Your task to perform on an android device: open app "The Home Depot" Image 0: 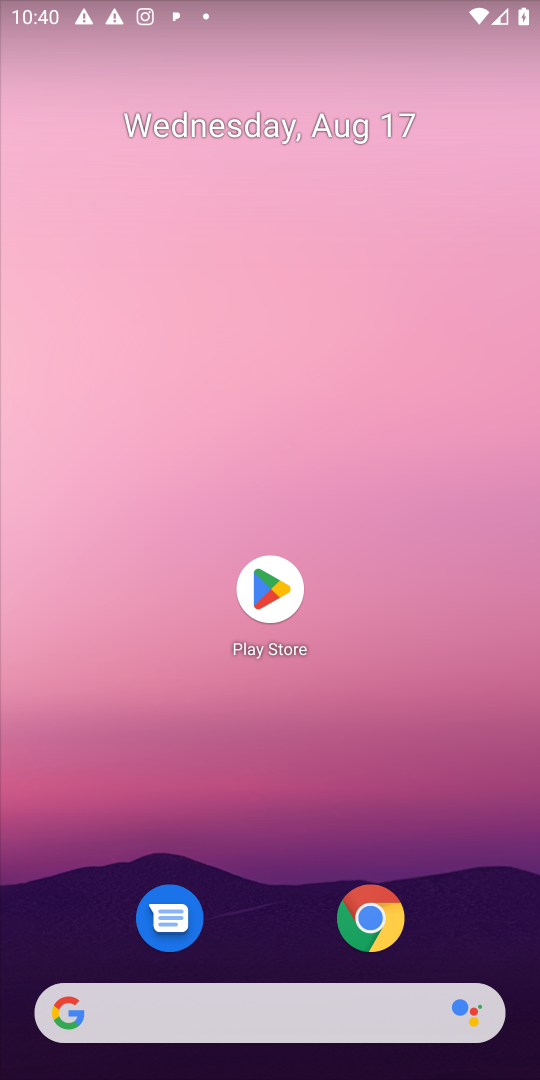
Step 0: press home button
Your task to perform on an android device: open app "The Home Depot" Image 1: 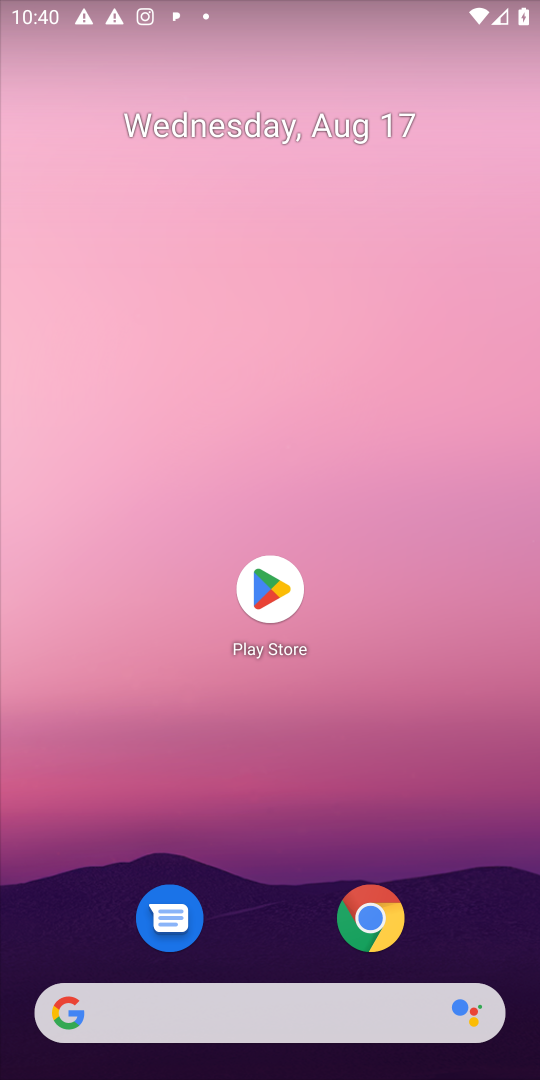
Step 1: click (269, 575)
Your task to perform on an android device: open app "The Home Depot" Image 2: 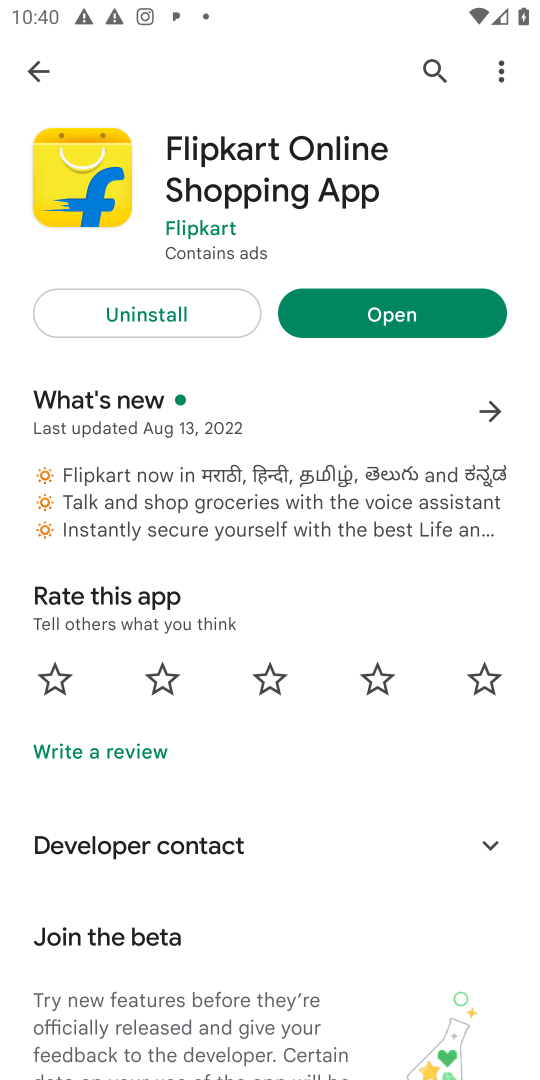
Step 2: click (434, 62)
Your task to perform on an android device: open app "The Home Depot" Image 3: 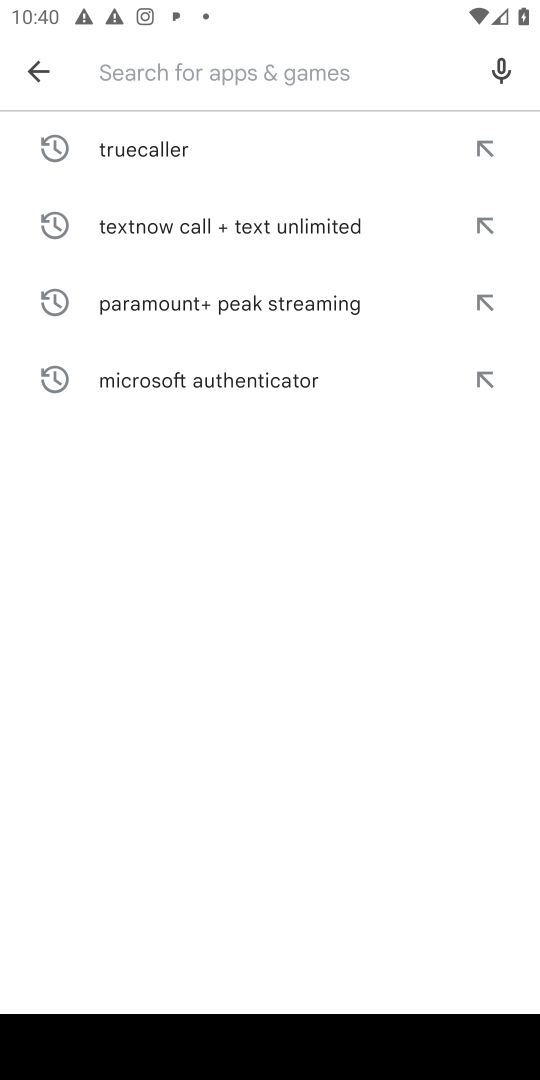
Step 3: type "The Home Depot"
Your task to perform on an android device: open app "The Home Depot" Image 4: 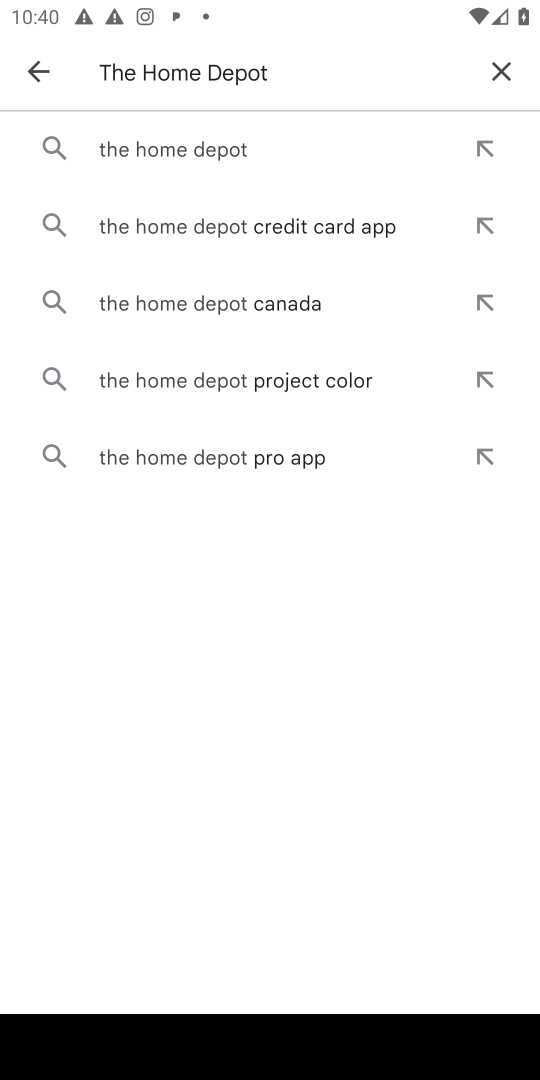
Step 4: click (239, 147)
Your task to perform on an android device: open app "The Home Depot" Image 5: 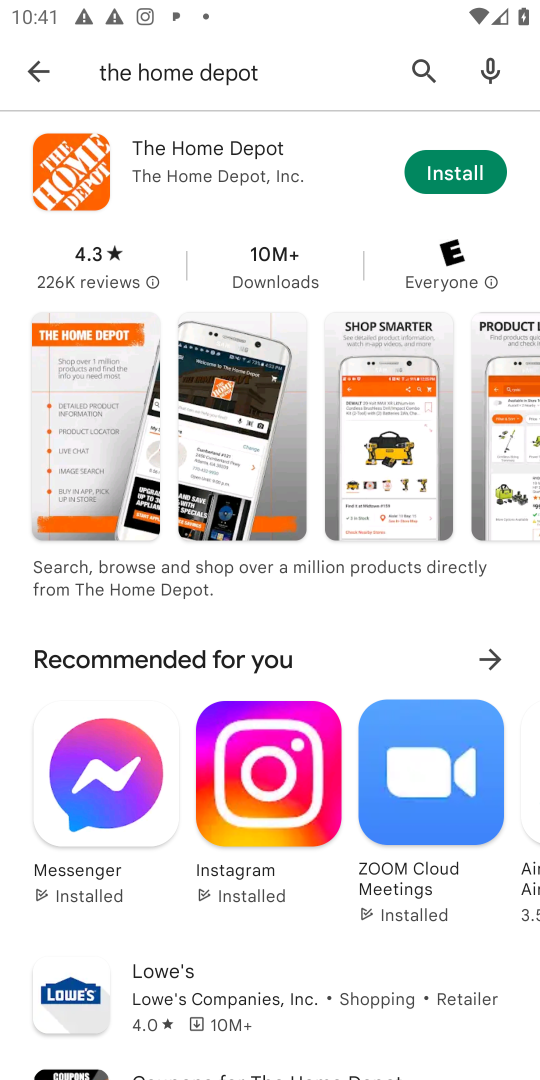
Step 5: task complete